Your task to perform on an android device: turn off sleep mode Image 0: 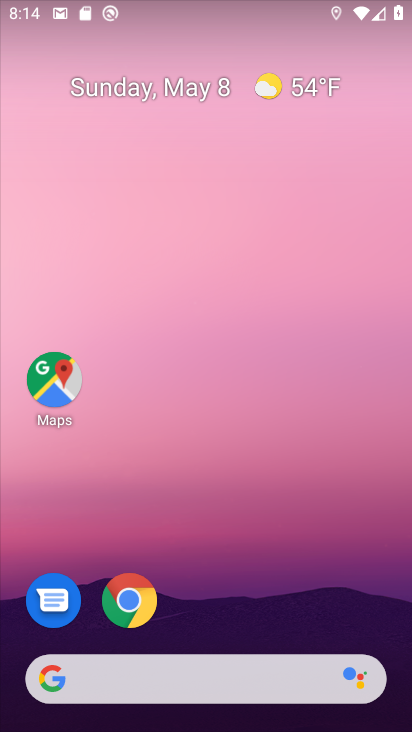
Step 0: drag from (238, 491) to (261, 230)
Your task to perform on an android device: turn off sleep mode Image 1: 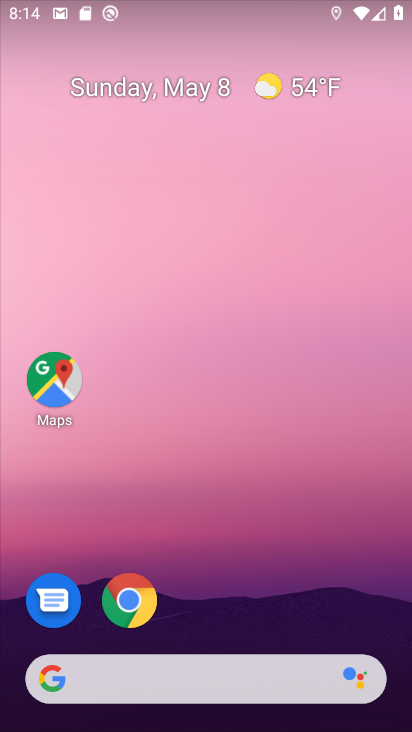
Step 1: drag from (252, 518) to (281, 71)
Your task to perform on an android device: turn off sleep mode Image 2: 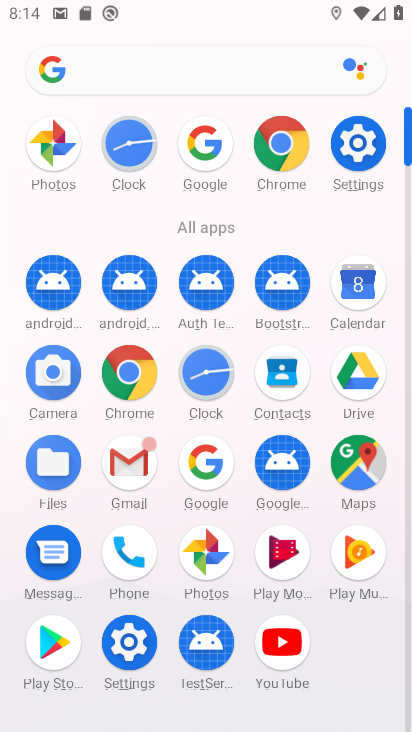
Step 2: click (364, 183)
Your task to perform on an android device: turn off sleep mode Image 3: 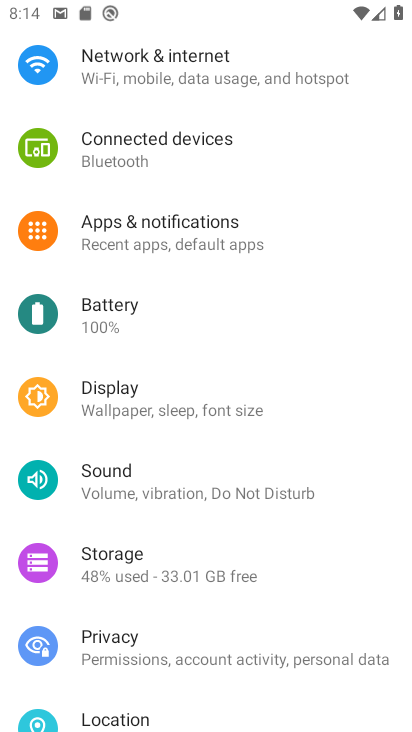
Step 3: click (189, 390)
Your task to perform on an android device: turn off sleep mode Image 4: 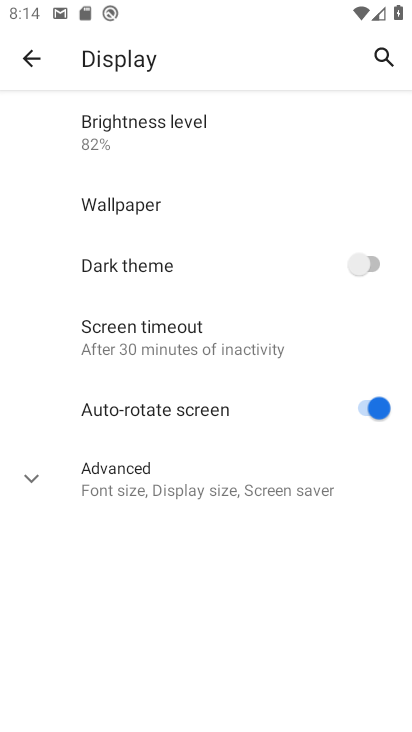
Step 4: click (135, 506)
Your task to perform on an android device: turn off sleep mode Image 5: 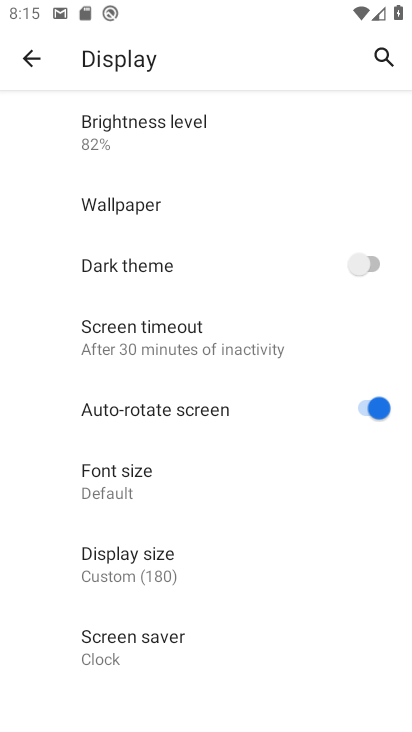
Step 5: task complete